Your task to perform on an android device: What's the weather? Image 0: 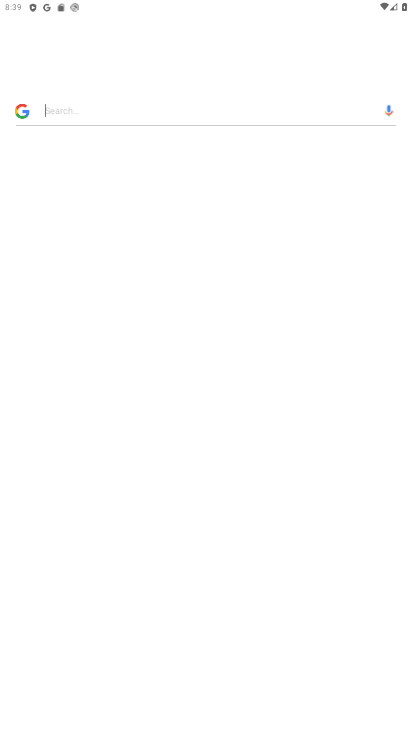
Step 0: click (219, 664)
Your task to perform on an android device: What's the weather? Image 1: 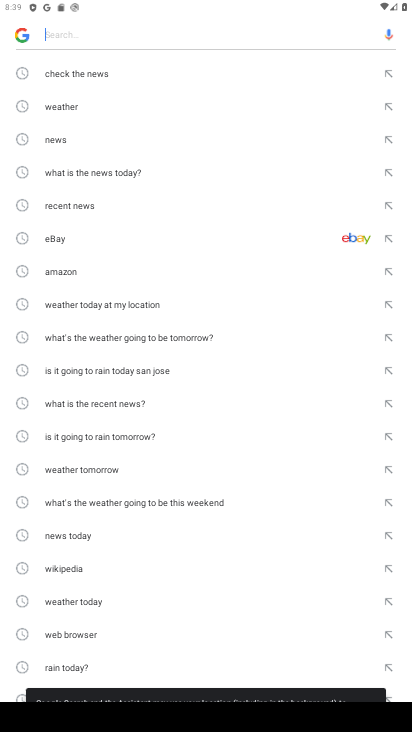
Step 1: press home button
Your task to perform on an android device: What's the weather? Image 2: 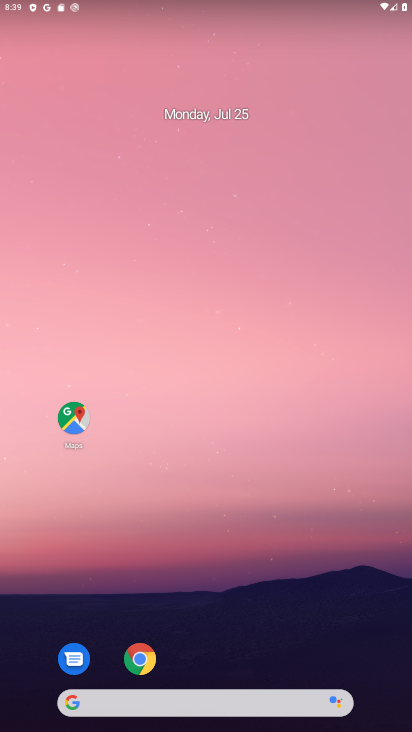
Step 2: click (223, 671)
Your task to perform on an android device: What's the weather? Image 3: 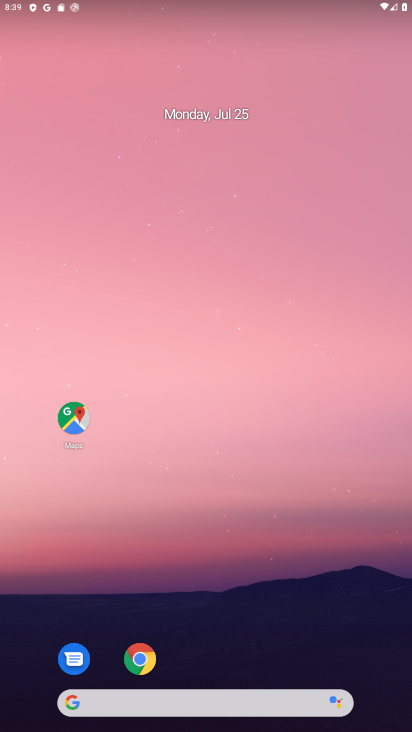
Step 3: click (144, 669)
Your task to perform on an android device: What's the weather? Image 4: 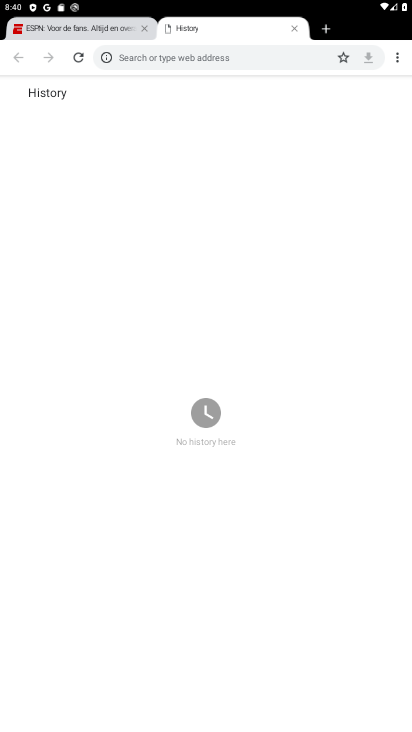
Step 4: click (219, 59)
Your task to perform on an android device: What's the weather? Image 5: 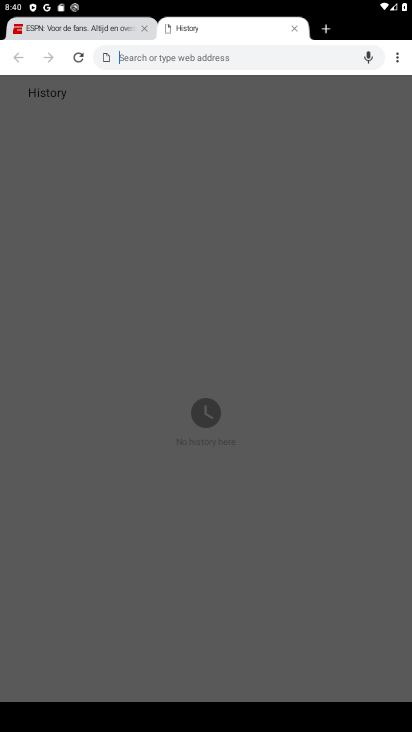
Step 5: click (219, 59)
Your task to perform on an android device: What's the weather? Image 6: 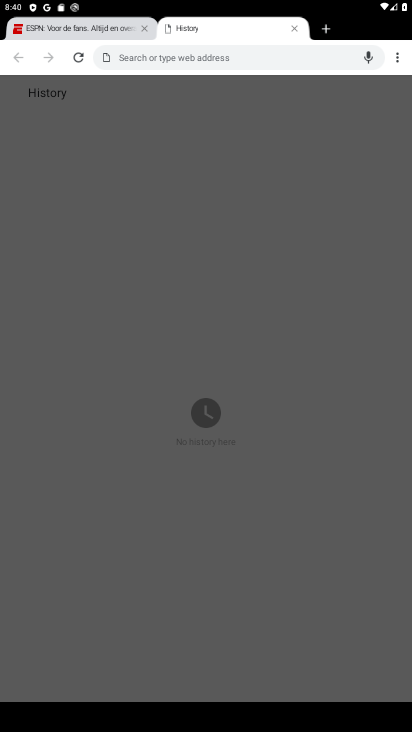
Step 6: click (219, 59)
Your task to perform on an android device: What's the weather? Image 7: 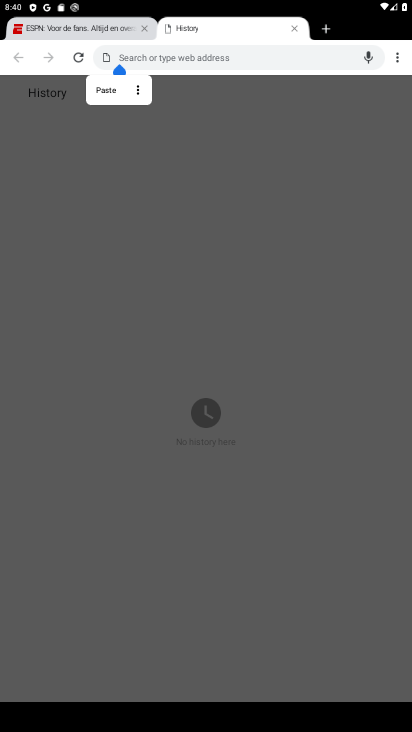
Step 7: type "What's the weather?"
Your task to perform on an android device: What's the weather? Image 8: 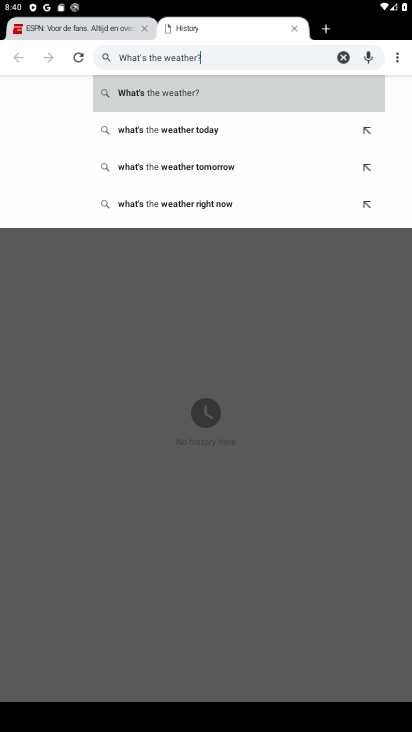
Step 8: click (200, 91)
Your task to perform on an android device: What's the weather? Image 9: 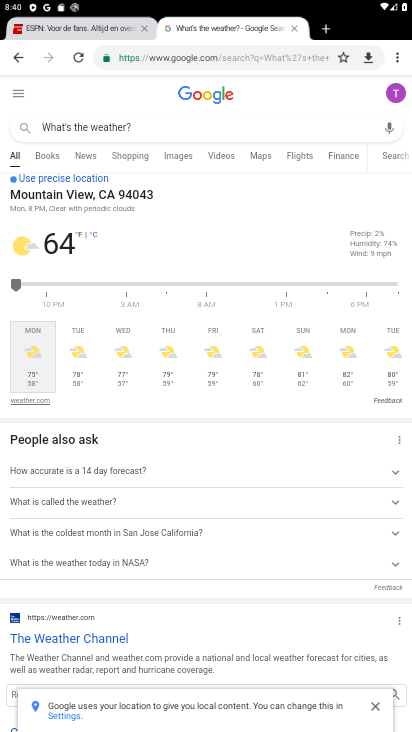
Step 9: task complete